Your task to perform on an android device: Go to Google maps Image 0: 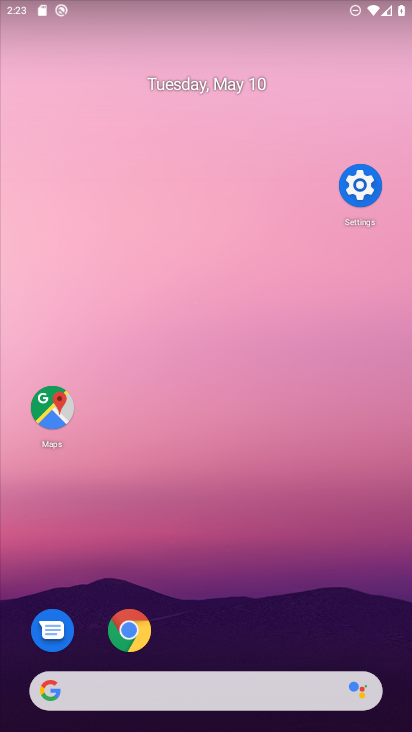
Step 0: drag from (339, 659) to (210, 69)
Your task to perform on an android device: Go to Google maps Image 1: 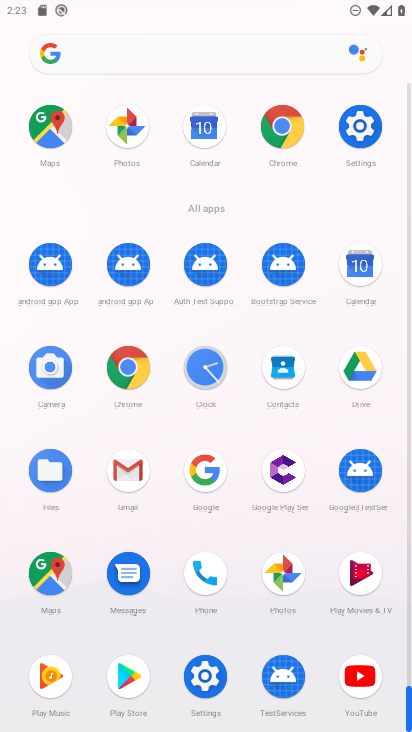
Step 1: click (40, 132)
Your task to perform on an android device: Go to Google maps Image 2: 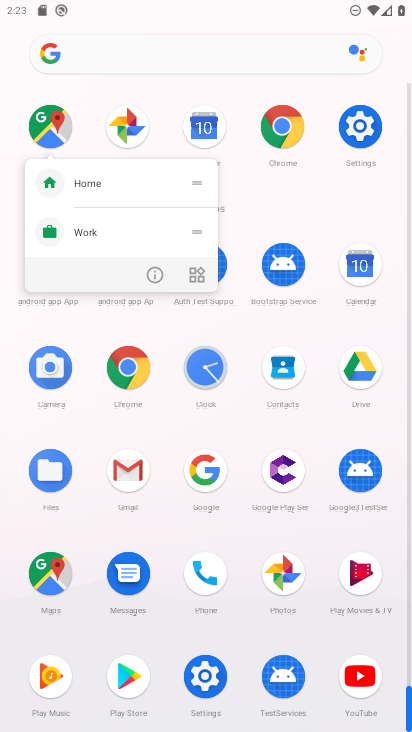
Step 2: click (56, 123)
Your task to perform on an android device: Go to Google maps Image 3: 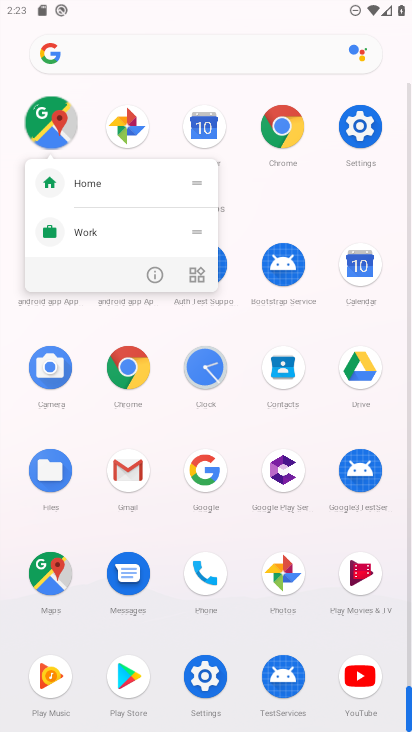
Step 3: click (59, 118)
Your task to perform on an android device: Go to Google maps Image 4: 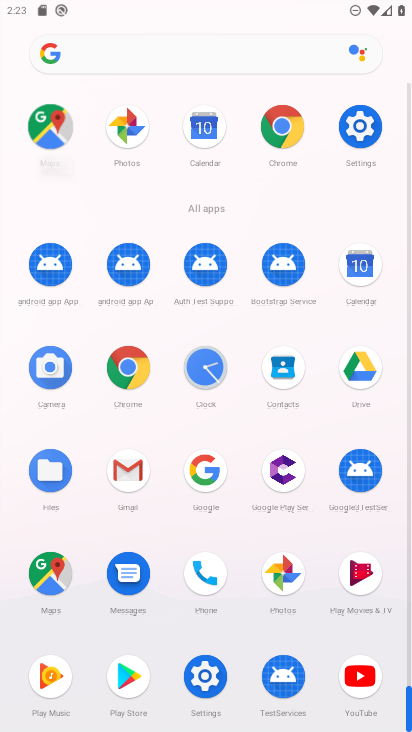
Step 4: click (61, 112)
Your task to perform on an android device: Go to Google maps Image 5: 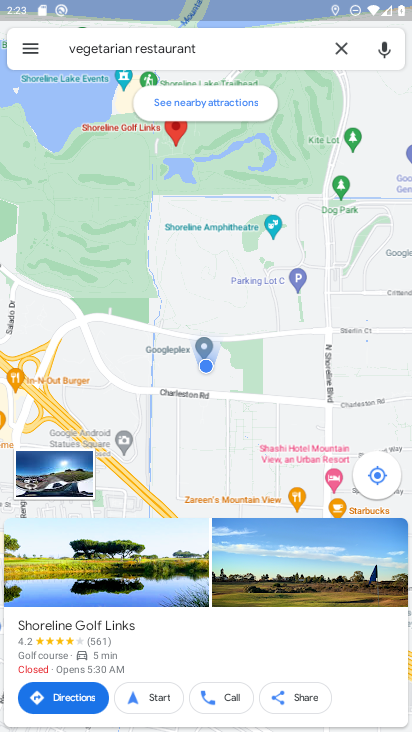
Step 5: task complete